Your task to perform on an android device: Search for sushi restaurants on Maps Image 0: 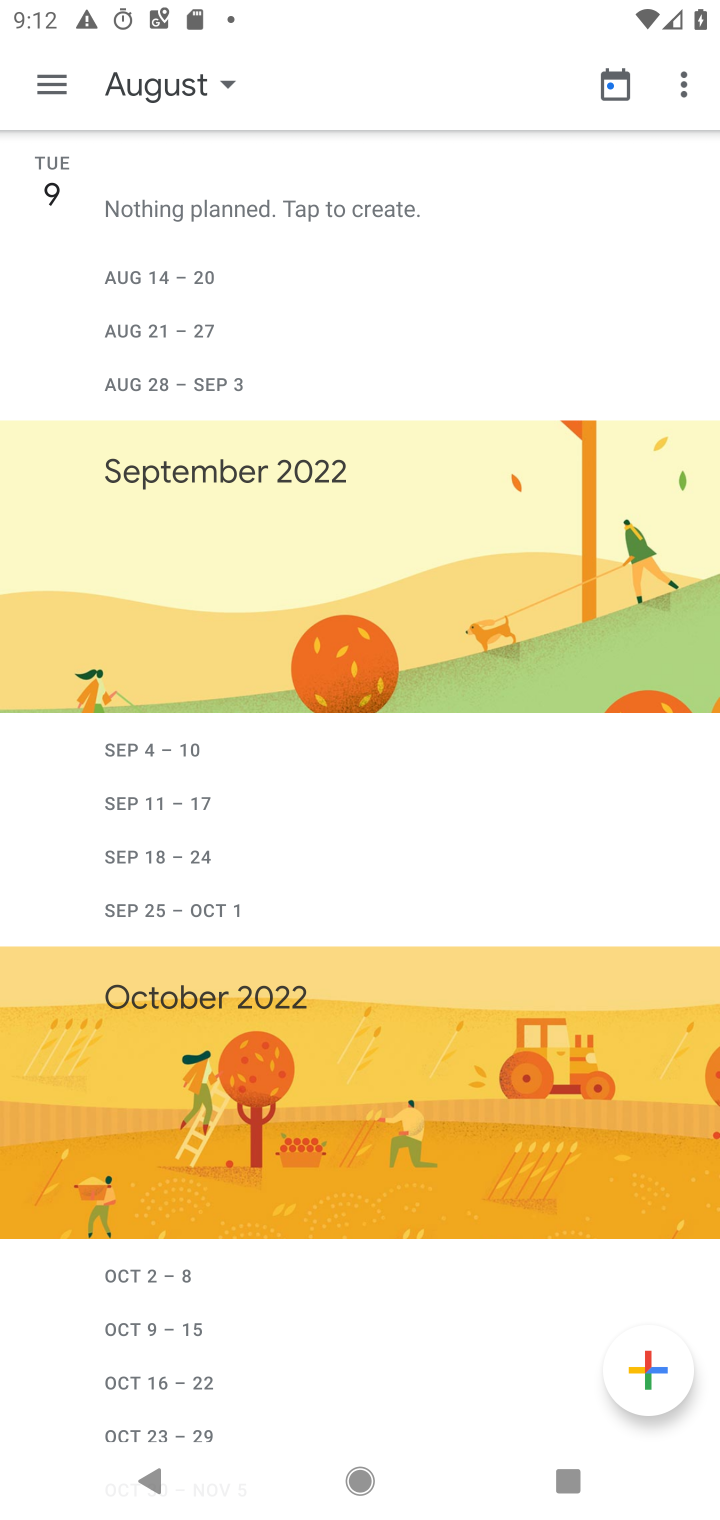
Step 0: press home button
Your task to perform on an android device: Search for sushi restaurants on Maps Image 1: 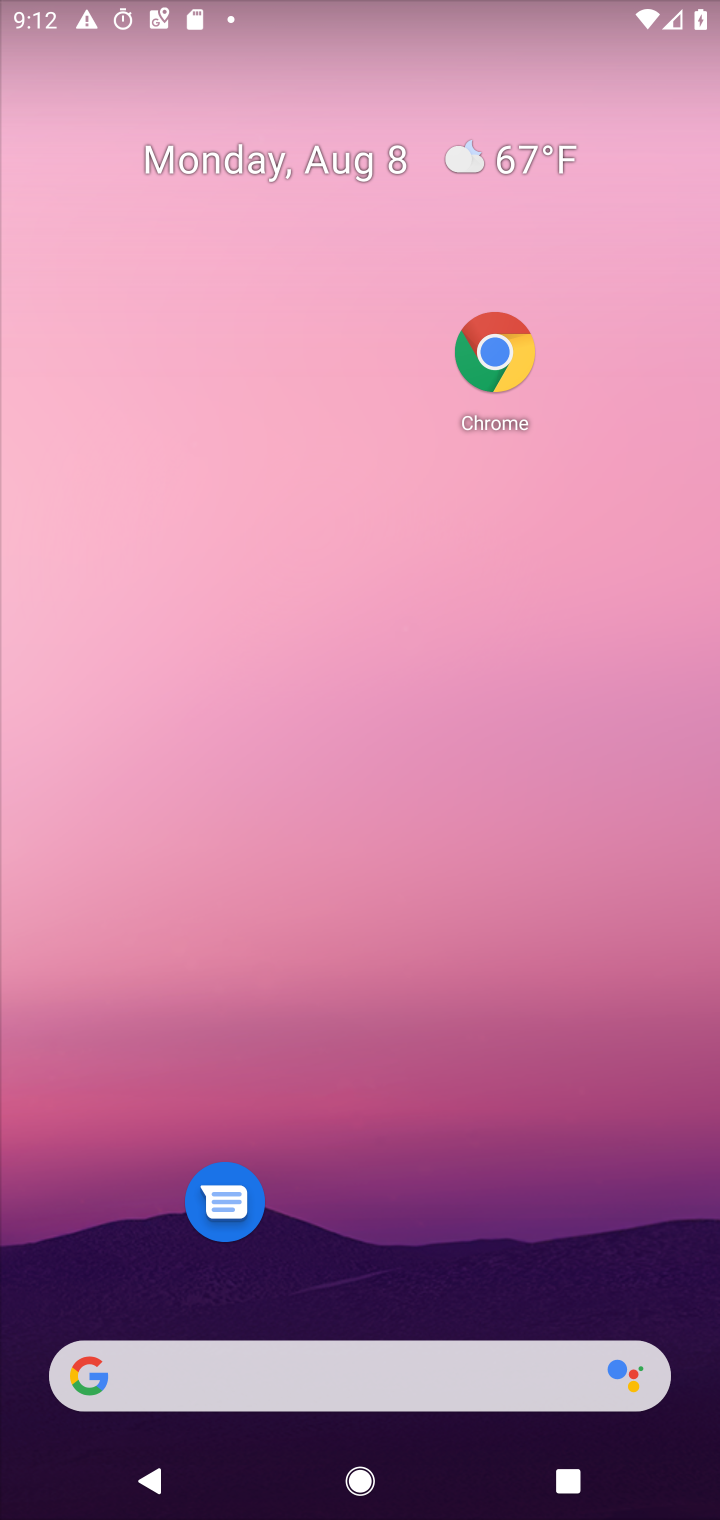
Step 1: drag from (413, 1275) to (656, 216)
Your task to perform on an android device: Search for sushi restaurants on Maps Image 2: 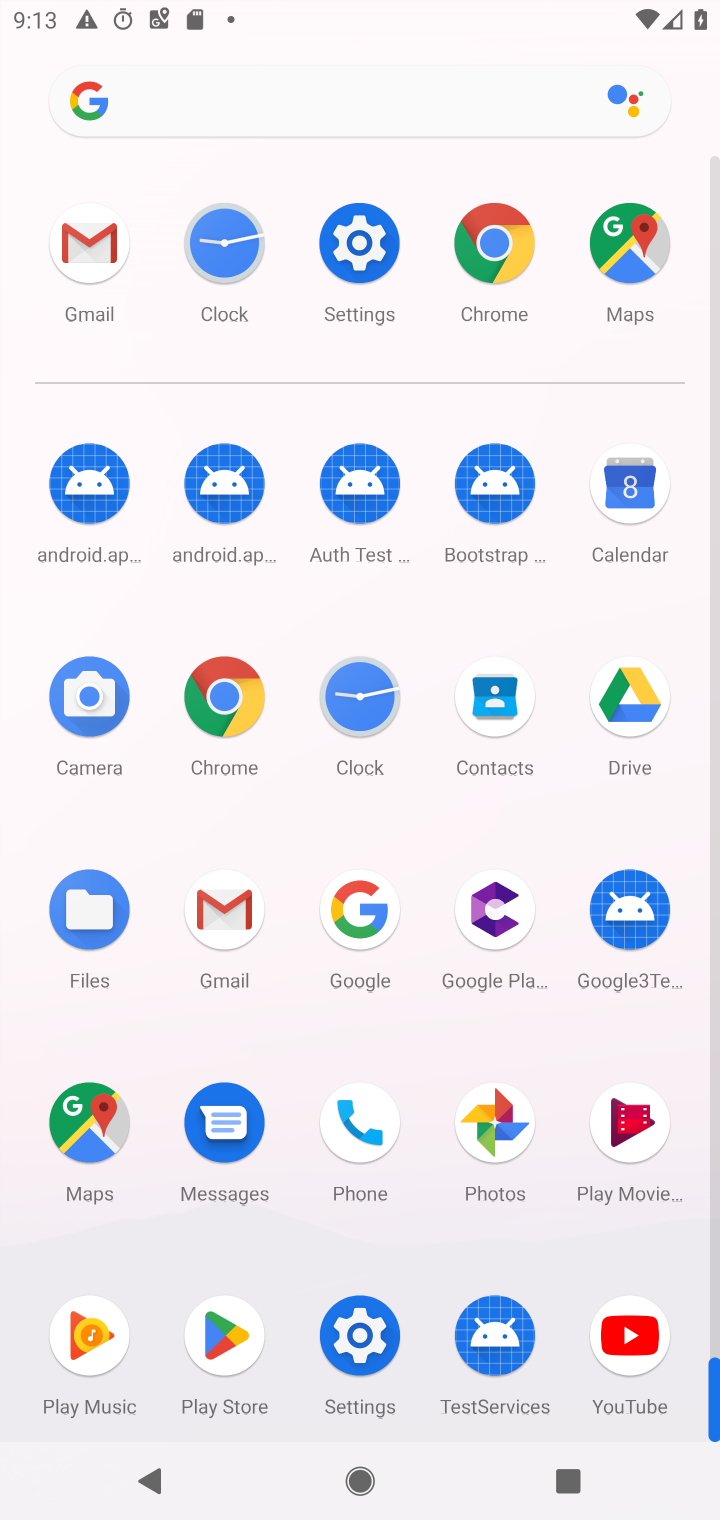
Step 2: click (610, 260)
Your task to perform on an android device: Search for sushi restaurants on Maps Image 3: 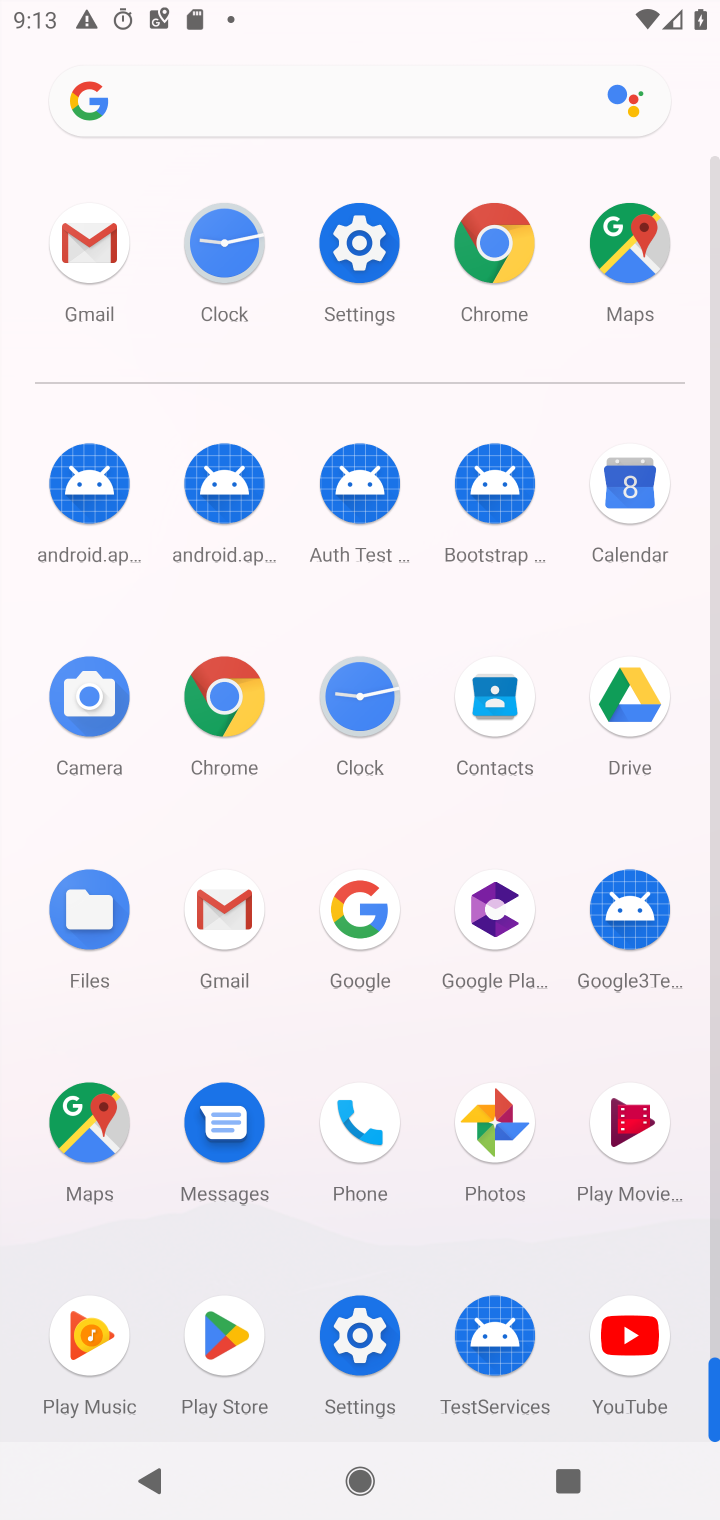
Step 3: click (635, 292)
Your task to perform on an android device: Search for sushi restaurants on Maps Image 4: 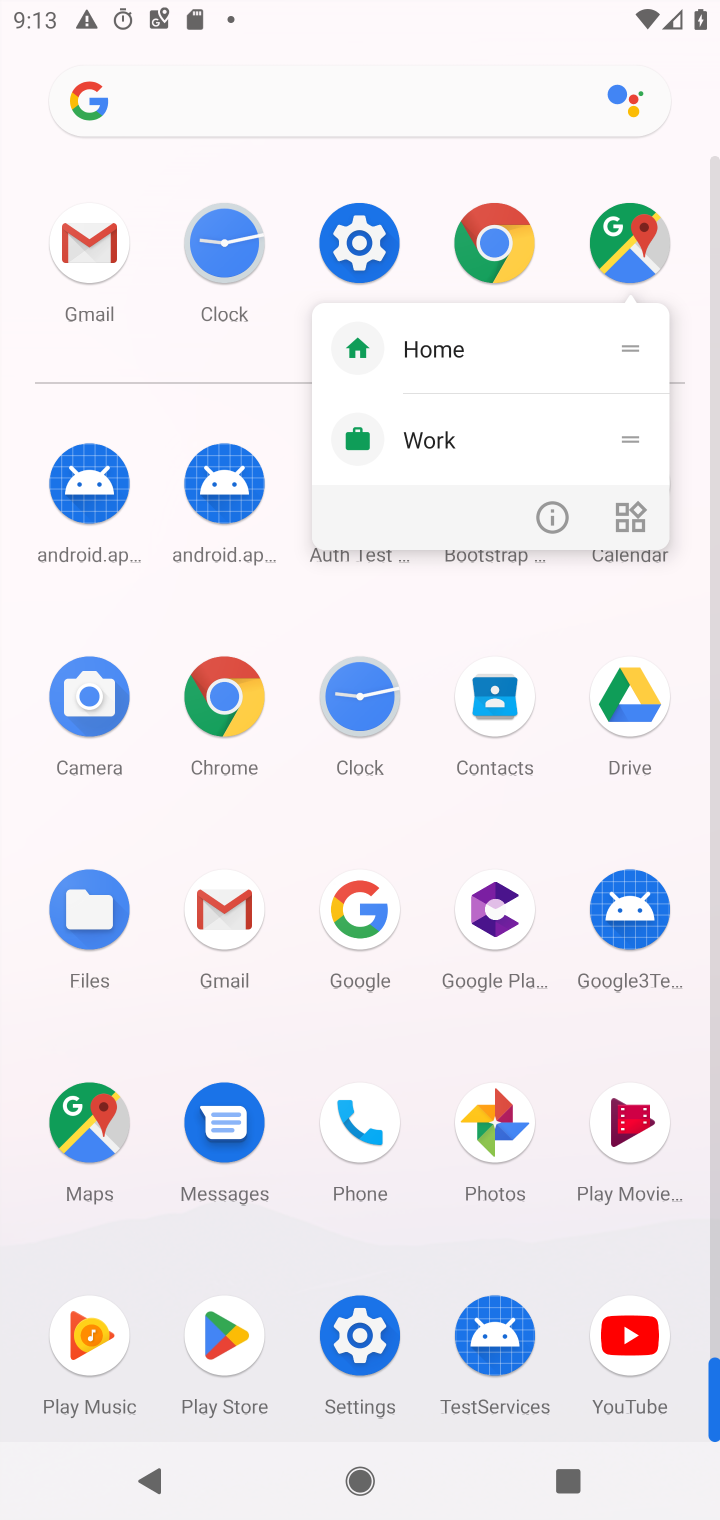
Step 4: click (631, 261)
Your task to perform on an android device: Search for sushi restaurants on Maps Image 5: 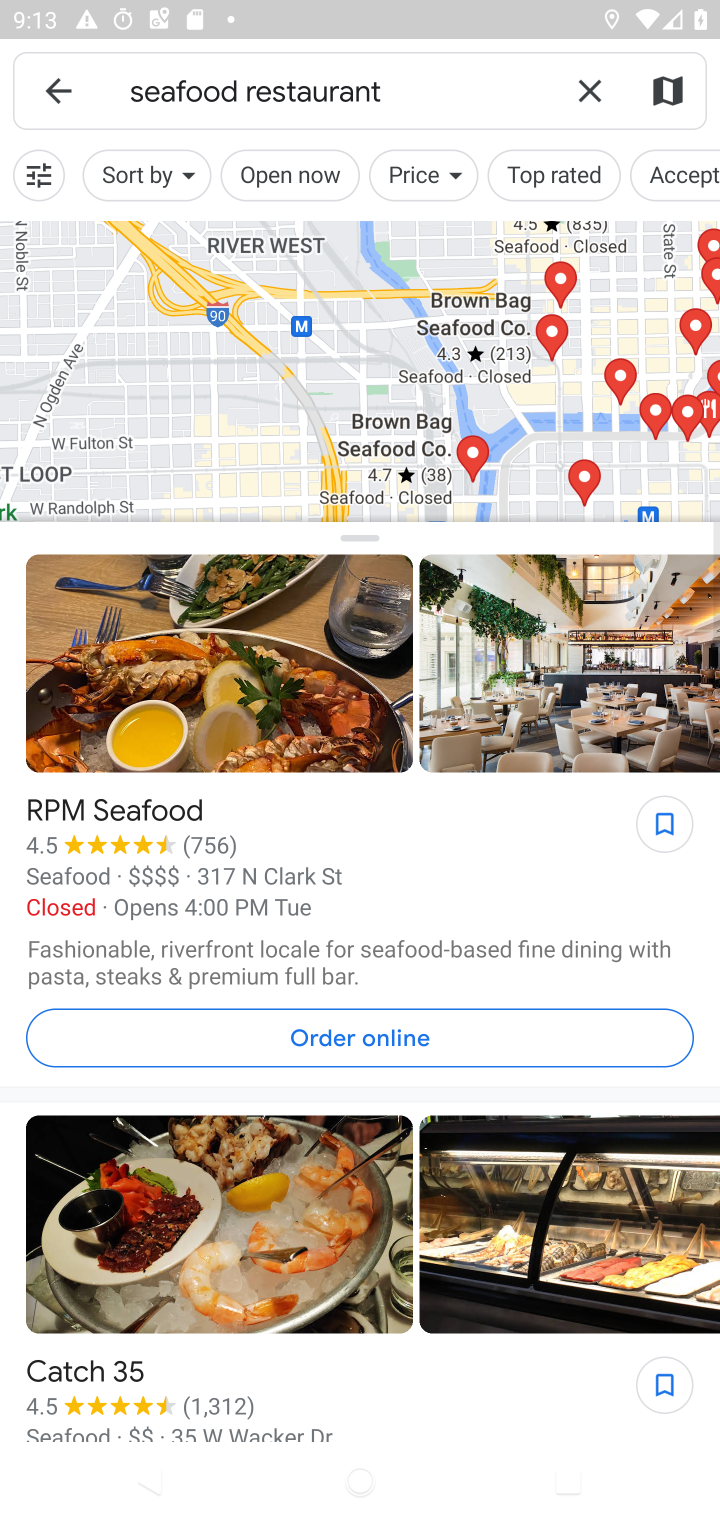
Step 5: click (589, 92)
Your task to perform on an android device: Search for sushi restaurants on Maps Image 6: 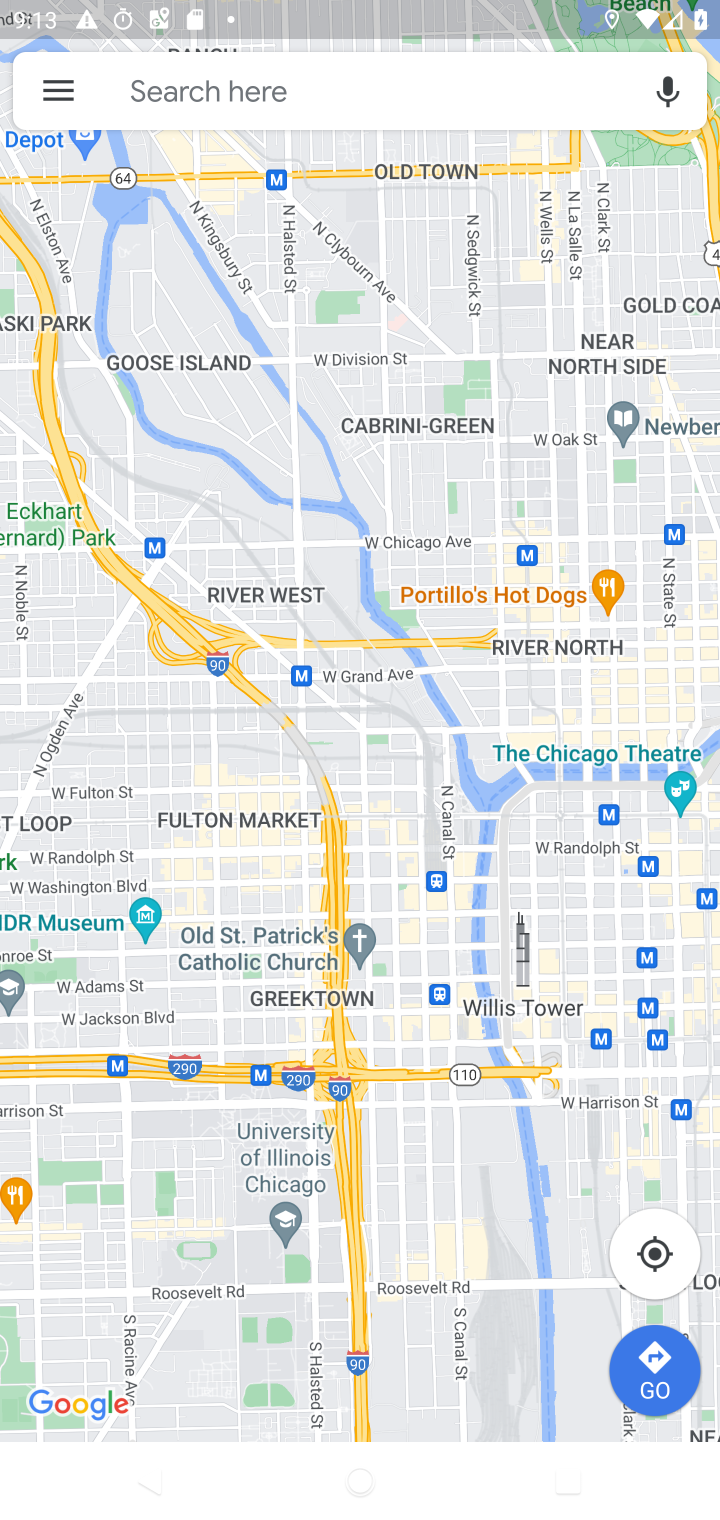
Step 6: click (393, 87)
Your task to perform on an android device: Search for sushi restaurants on Maps Image 7: 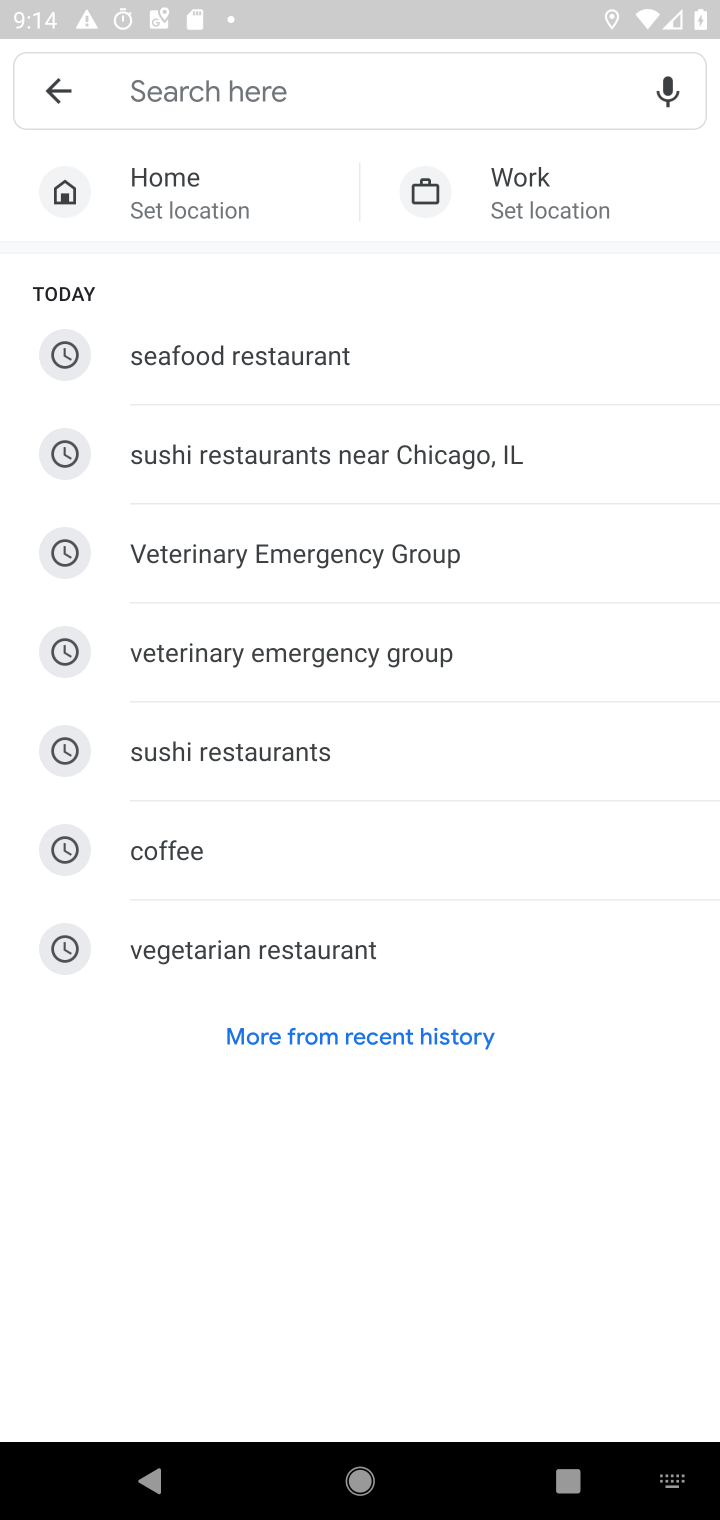
Step 7: click (295, 753)
Your task to perform on an android device: Search for sushi restaurants on Maps Image 8: 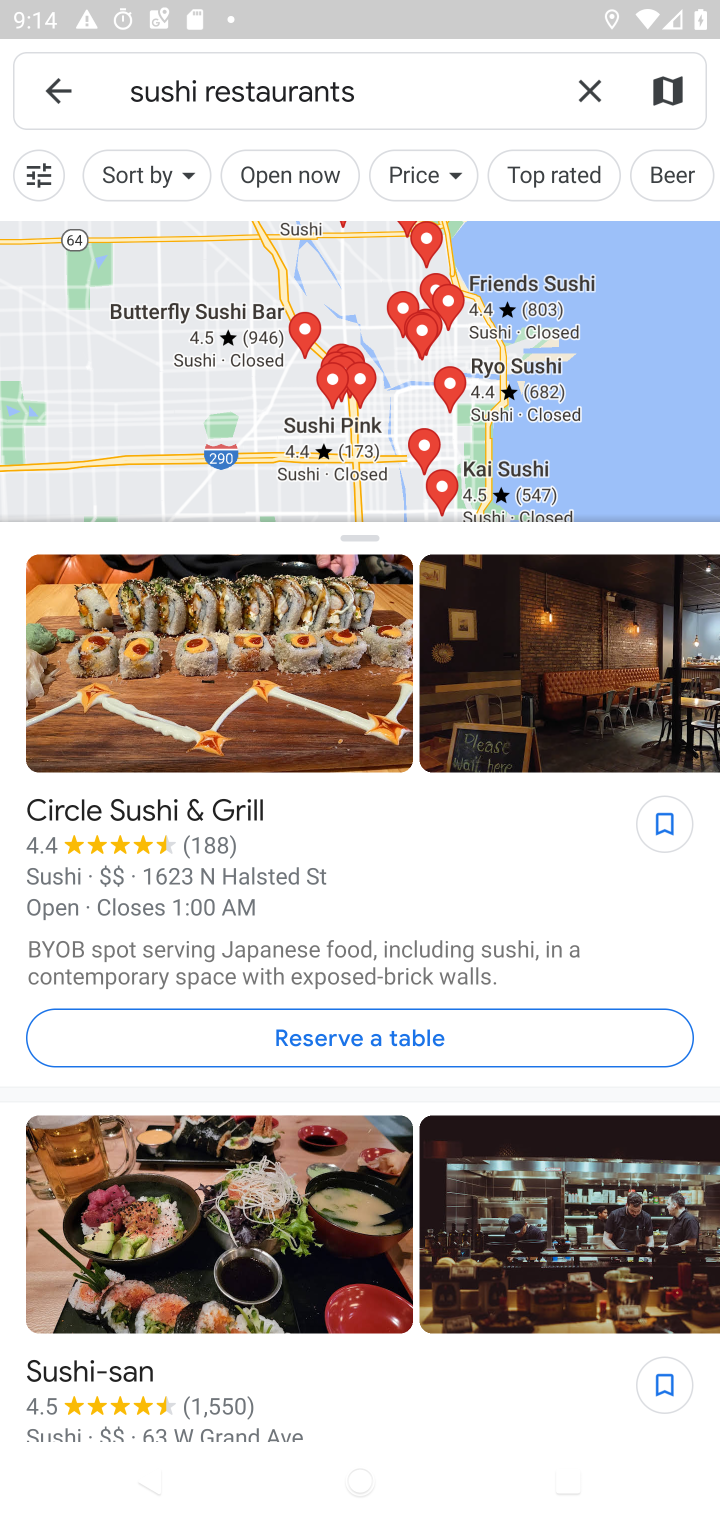
Step 8: task complete